Your task to perform on an android device: Open settings on Google Maps Image 0: 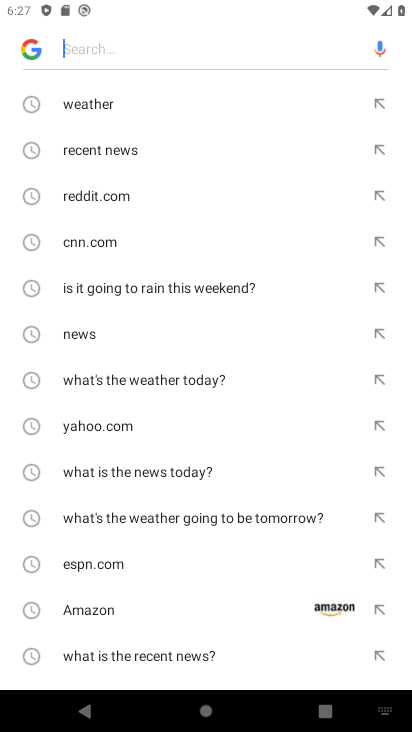
Step 0: press home button
Your task to perform on an android device: Open settings on Google Maps Image 1: 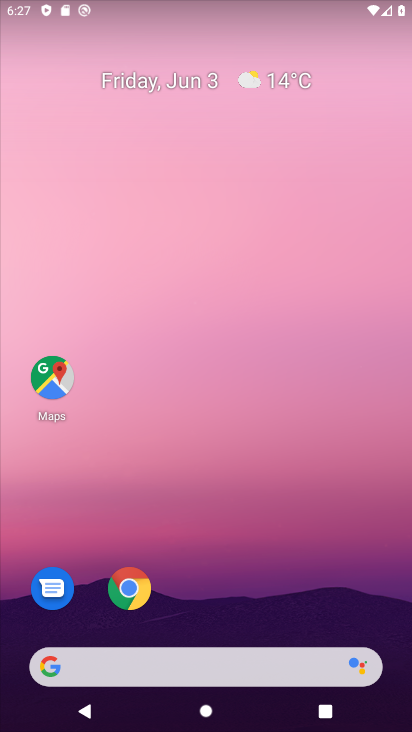
Step 1: click (55, 384)
Your task to perform on an android device: Open settings on Google Maps Image 2: 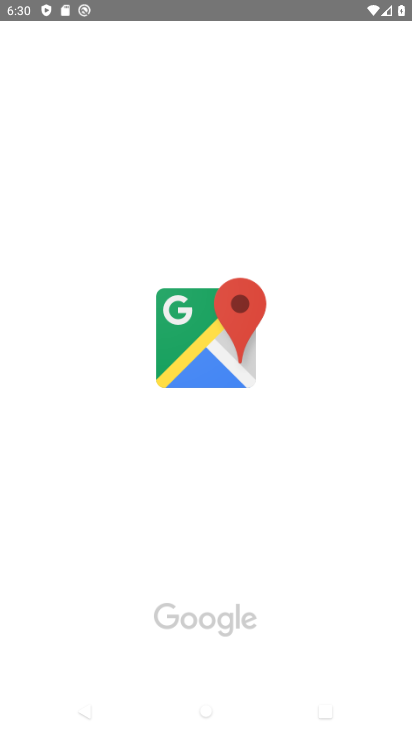
Step 2: task complete